Your task to perform on an android device: Search for a new skincare product Image 0: 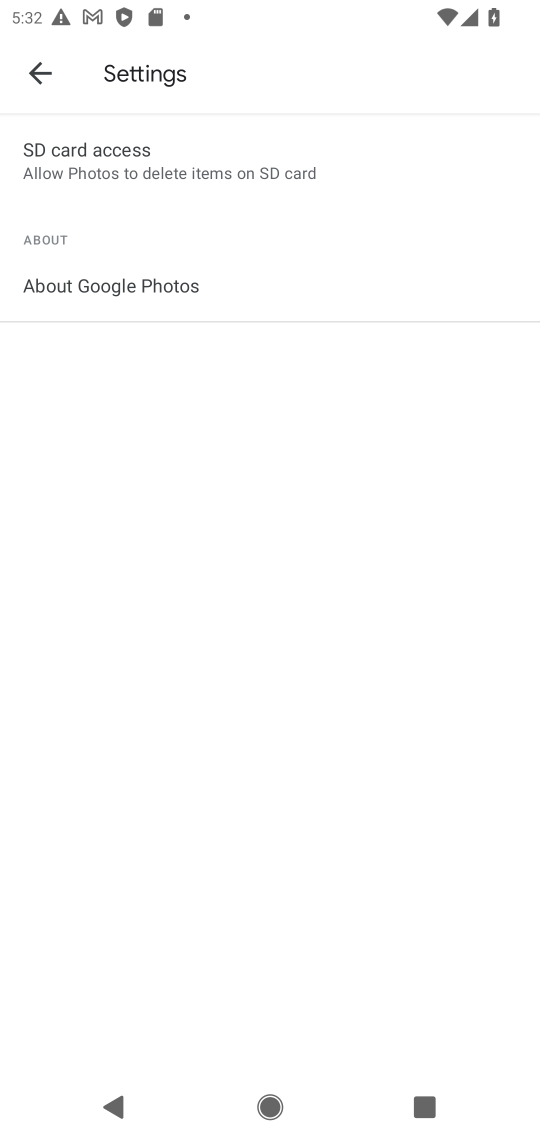
Step 0: press home button
Your task to perform on an android device: Search for a new skincare product Image 1: 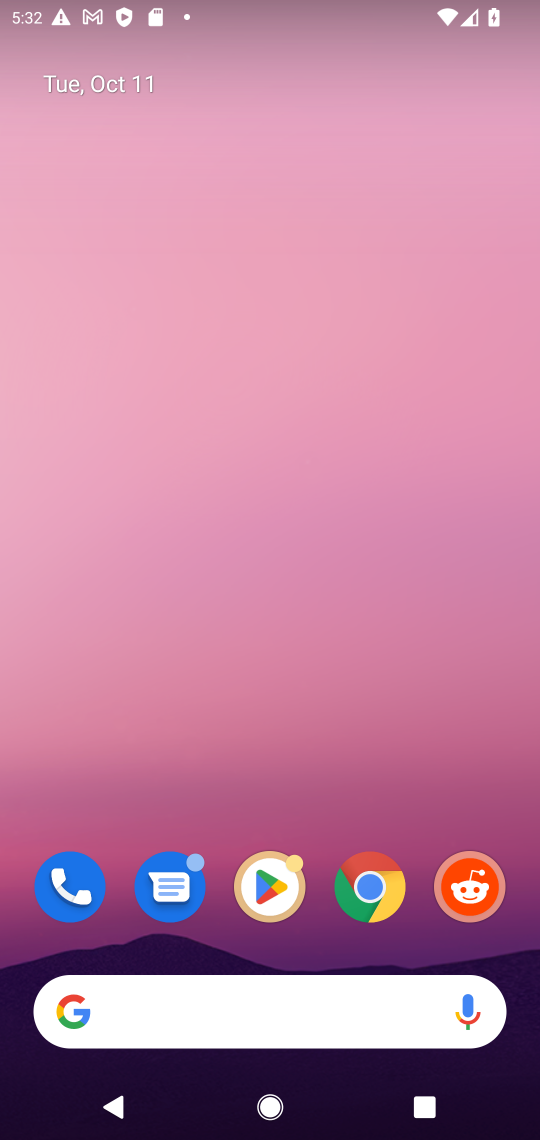
Step 1: click (224, 1015)
Your task to perform on an android device: Search for a new skincare product Image 2: 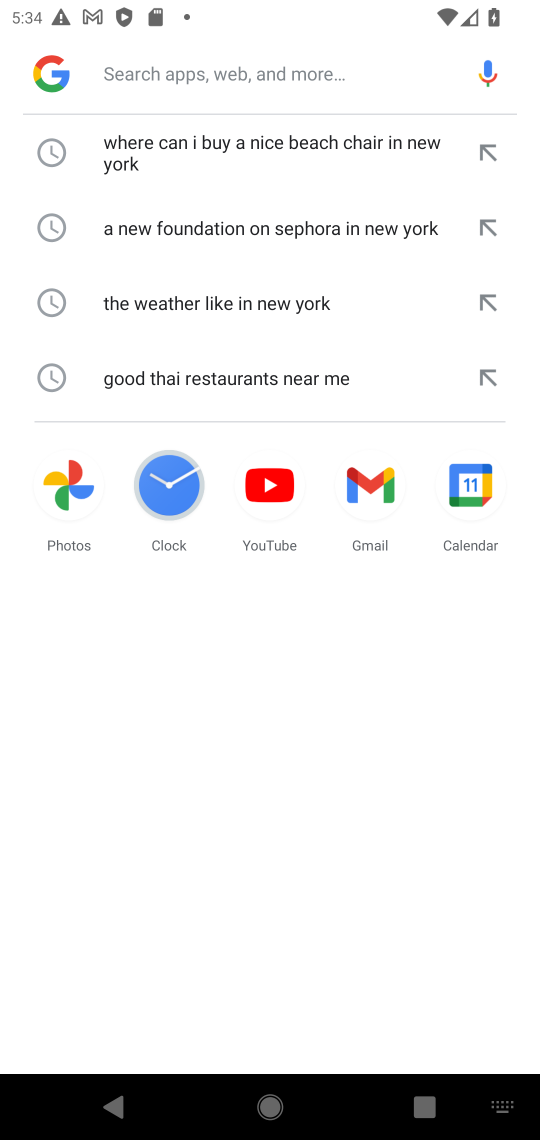
Step 2: type "Search for a new skincare product"
Your task to perform on an android device: Search for a new skincare product Image 3: 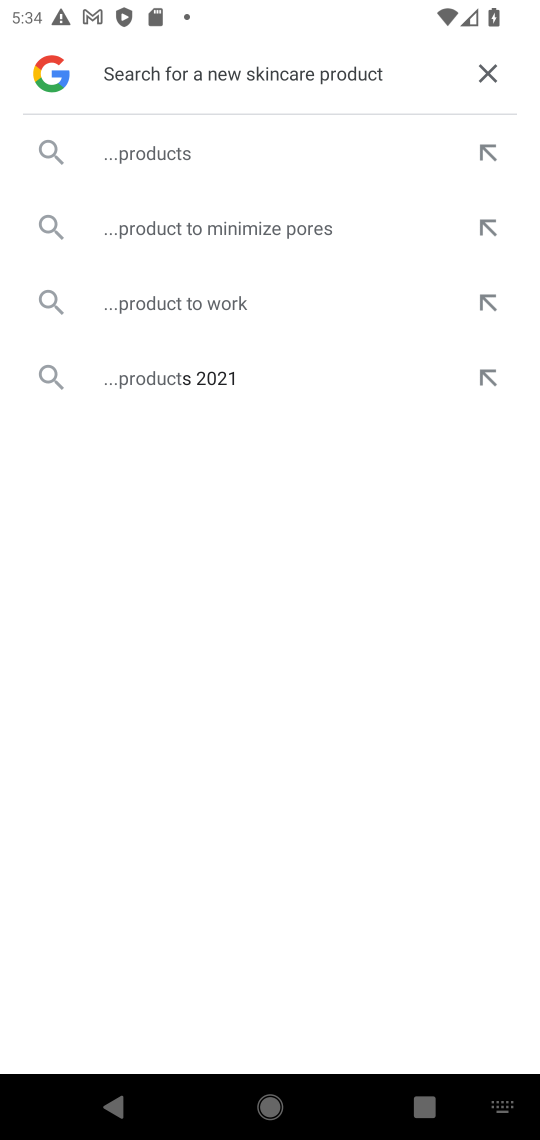
Step 3: click (173, 150)
Your task to perform on an android device: Search for a new skincare product Image 4: 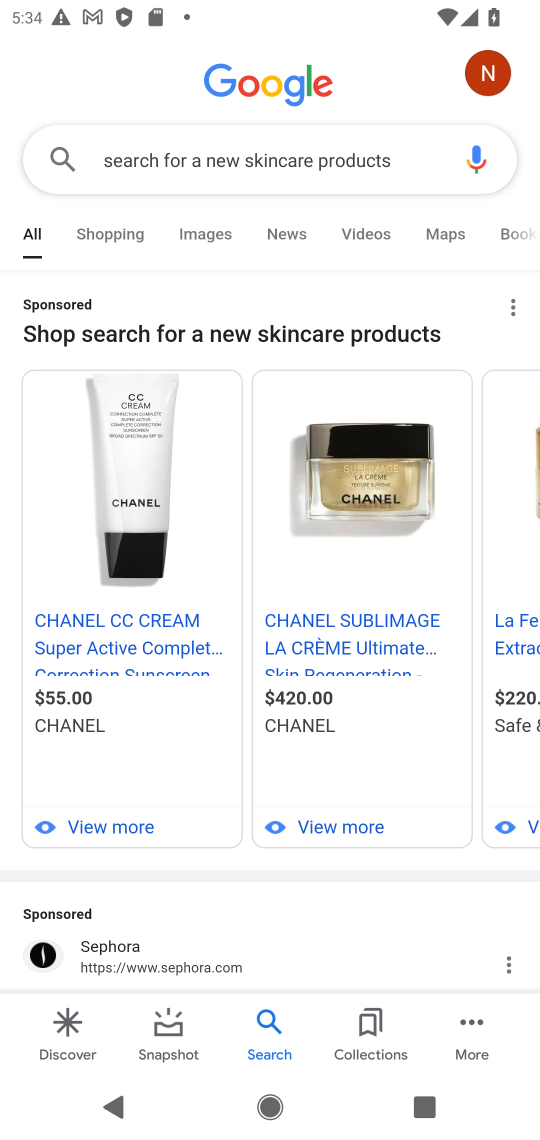
Step 4: task complete